Your task to perform on an android device: Go to calendar. Show me events next week Image 0: 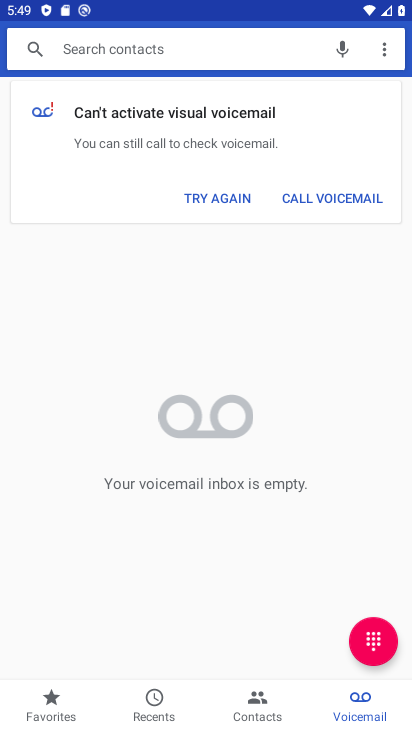
Step 0: press home button
Your task to perform on an android device: Go to calendar. Show me events next week Image 1: 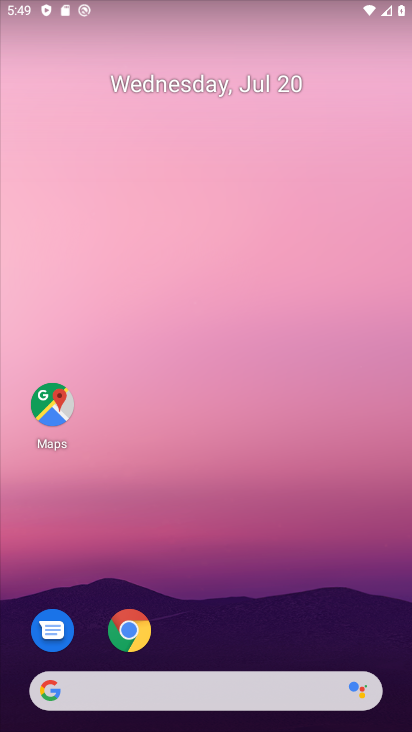
Step 1: drag from (179, 657) to (241, 1)
Your task to perform on an android device: Go to calendar. Show me events next week Image 2: 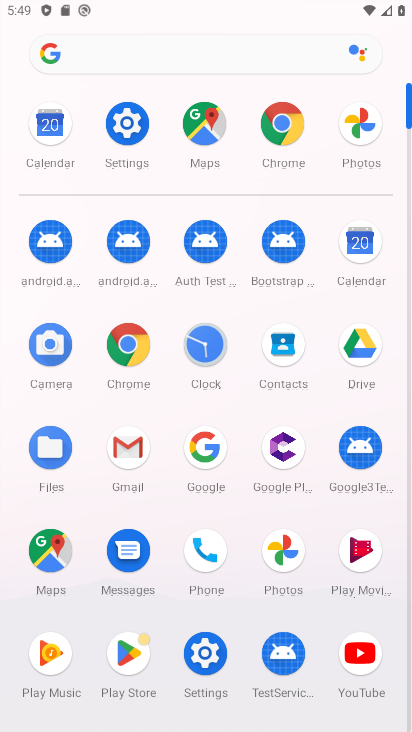
Step 2: click (359, 256)
Your task to perform on an android device: Go to calendar. Show me events next week Image 3: 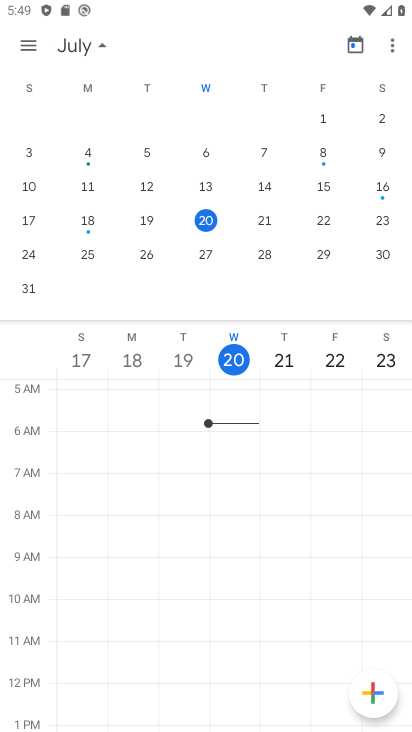
Step 3: click (213, 252)
Your task to perform on an android device: Go to calendar. Show me events next week Image 4: 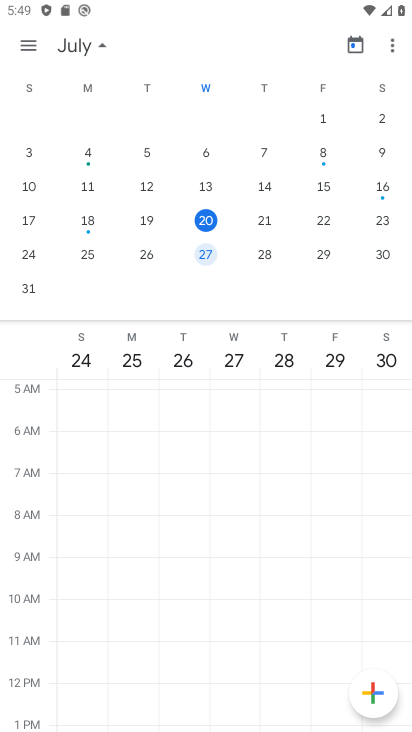
Step 4: task complete